Your task to perform on an android device: toggle notification dots Image 0: 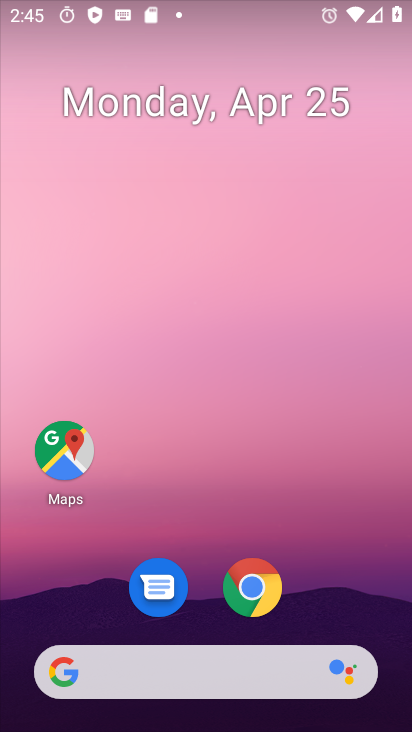
Step 0: drag from (336, 564) to (242, 41)
Your task to perform on an android device: toggle notification dots Image 1: 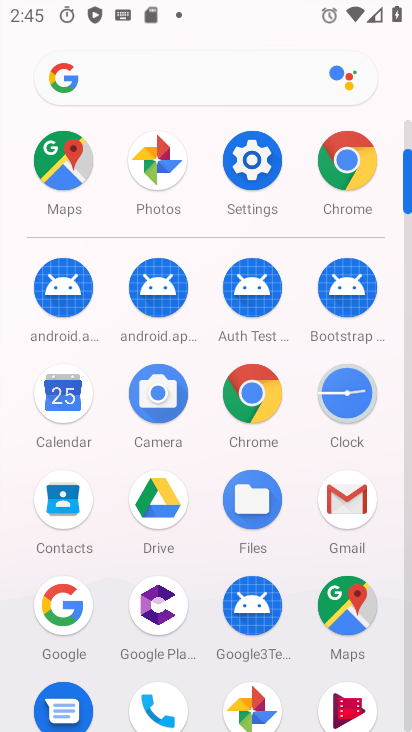
Step 1: click (264, 166)
Your task to perform on an android device: toggle notification dots Image 2: 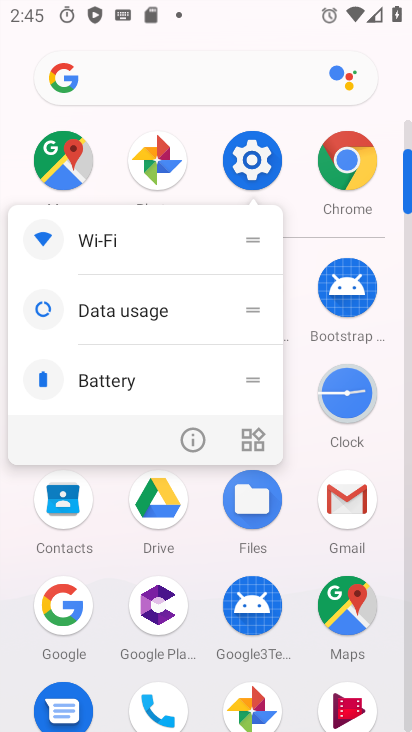
Step 2: click (249, 155)
Your task to perform on an android device: toggle notification dots Image 3: 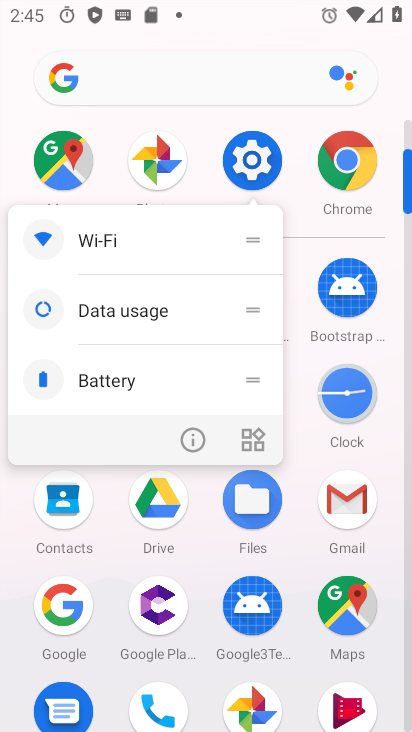
Step 3: click (248, 155)
Your task to perform on an android device: toggle notification dots Image 4: 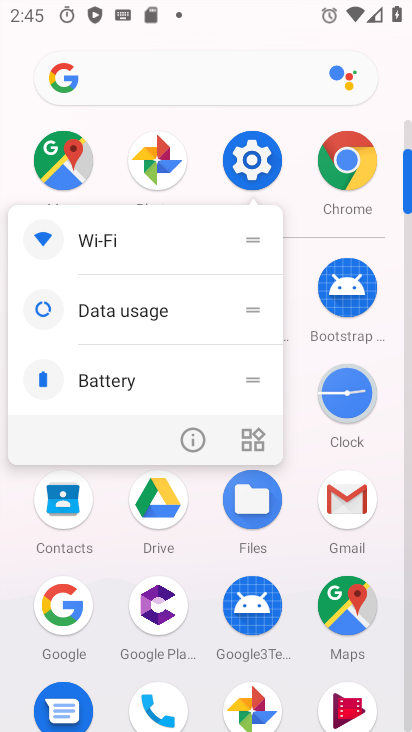
Step 4: drag from (300, 557) to (325, 196)
Your task to perform on an android device: toggle notification dots Image 5: 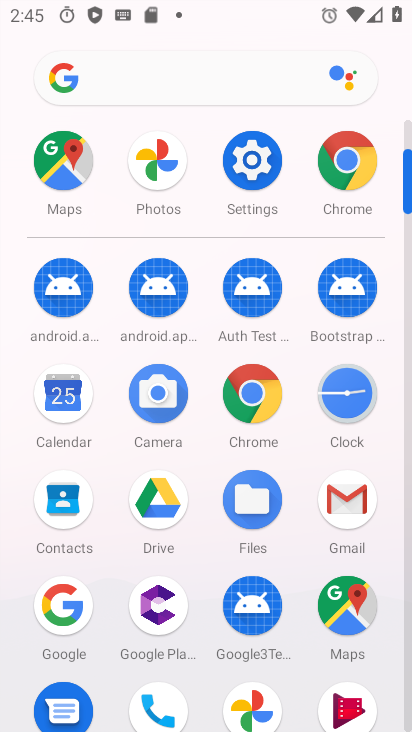
Step 5: drag from (278, 534) to (311, 196)
Your task to perform on an android device: toggle notification dots Image 6: 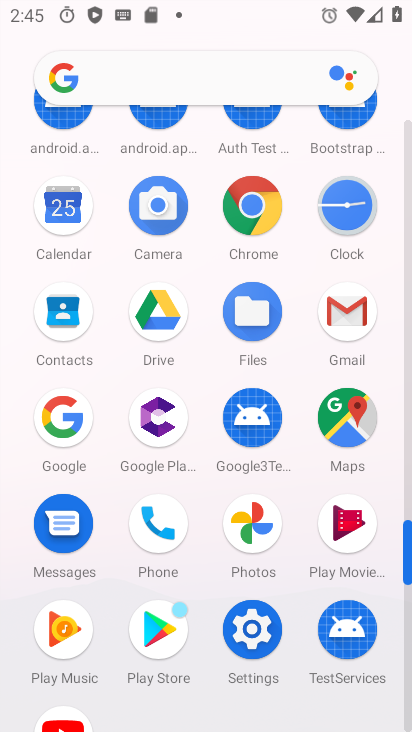
Step 6: click (259, 622)
Your task to perform on an android device: toggle notification dots Image 7: 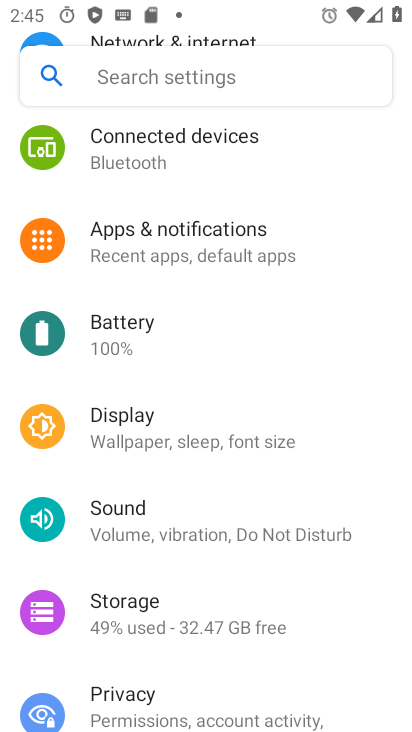
Step 7: drag from (229, 200) to (264, 579)
Your task to perform on an android device: toggle notification dots Image 8: 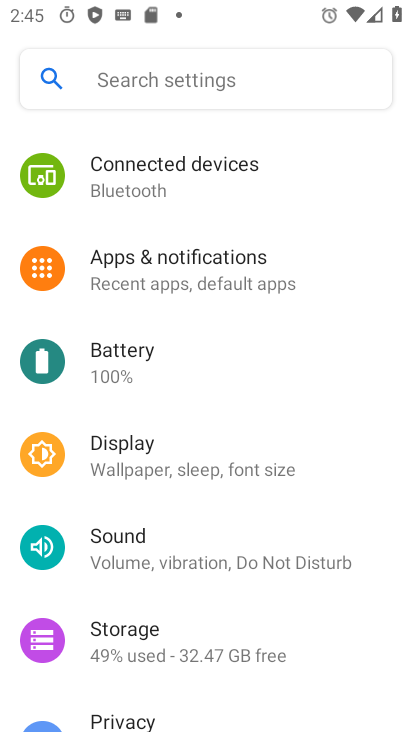
Step 8: click (226, 280)
Your task to perform on an android device: toggle notification dots Image 9: 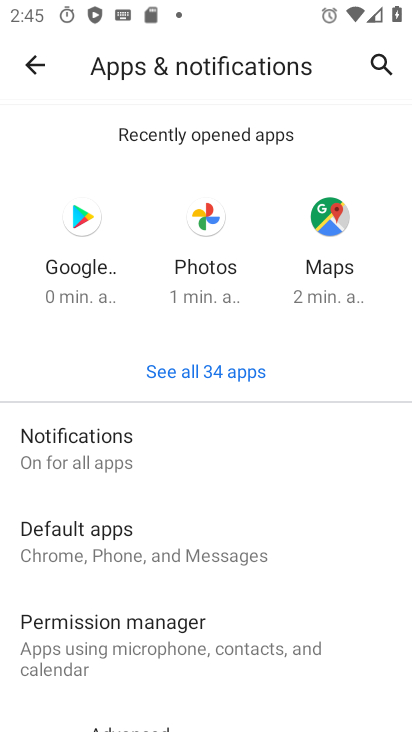
Step 9: drag from (275, 549) to (327, 157)
Your task to perform on an android device: toggle notification dots Image 10: 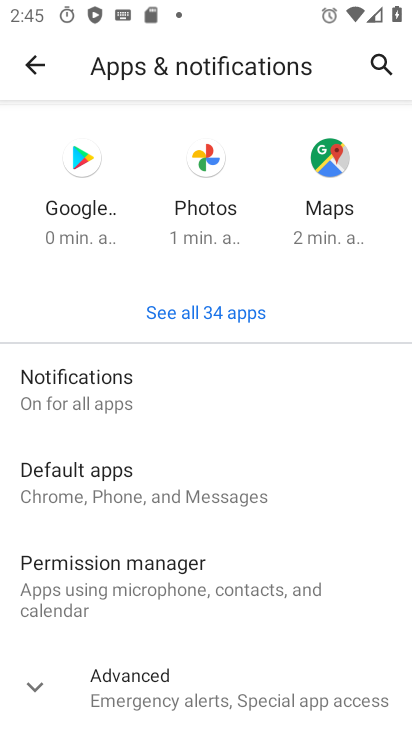
Step 10: click (97, 375)
Your task to perform on an android device: toggle notification dots Image 11: 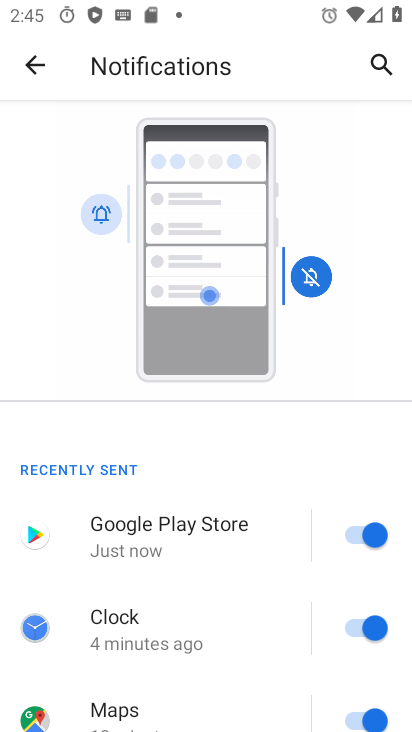
Step 11: drag from (280, 643) to (322, 146)
Your task to perform on an android device: toggle notification dots Image 12: 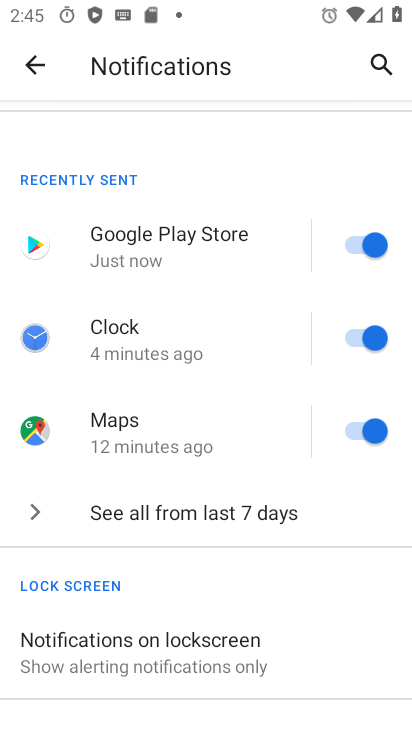
Step 12: drag from (204, 591) to (224, 187)
Your task to perform on an android device: toggle notification dots Image 13: 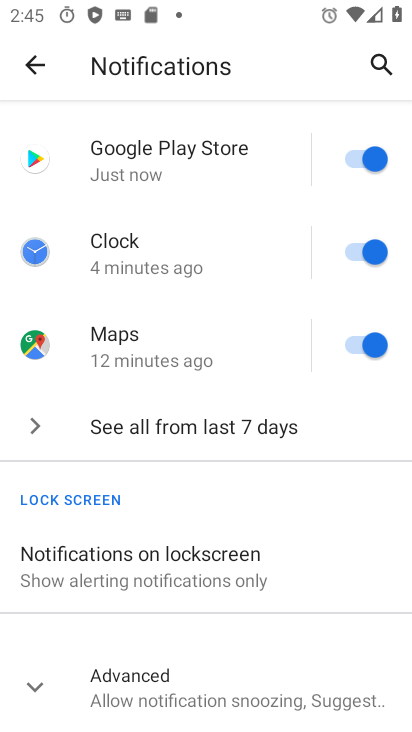
Step 13: click (152, 689)
Your task to perform on an android device: toggle notification dots Image 14: 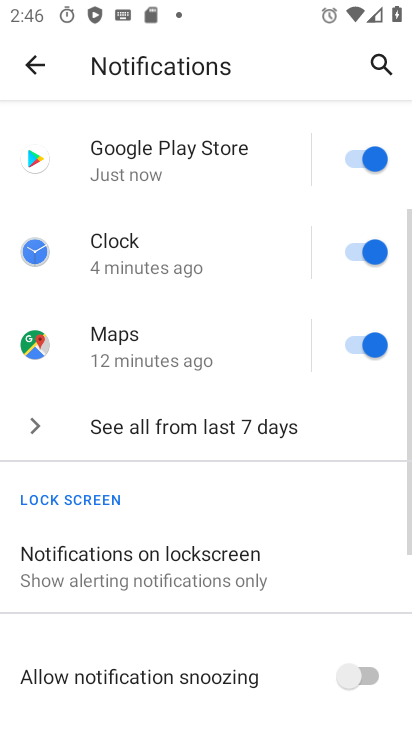
Step 14: drag from (236, 598) to (275, 159)
Your task to perform on an android device: toggle notification dots Image 15: 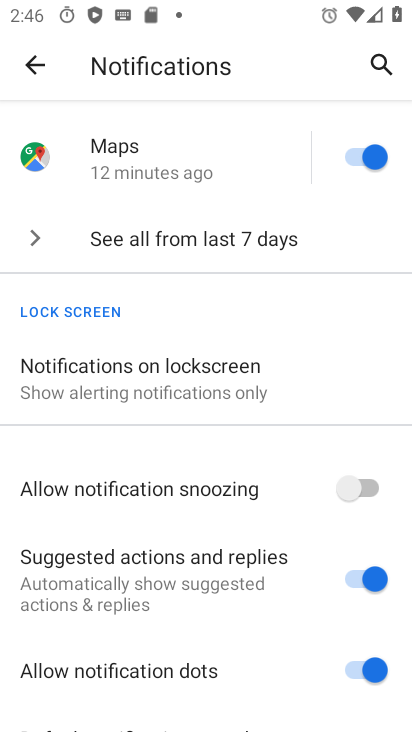
Step 15: click (365, 659)
Your task to perform on an android device: toggle notification dots Image 16: 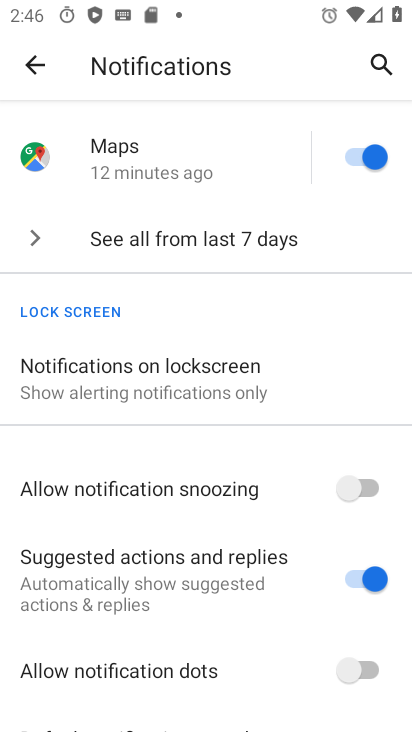
Step 16: task complete